Your task to perform on an android device: Open Amazon Image 0: 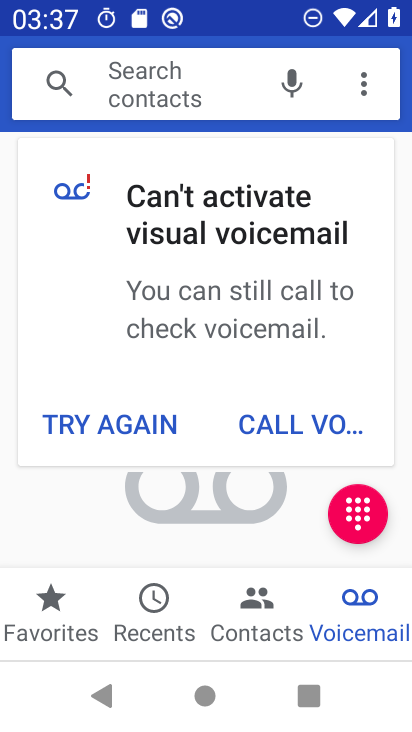
Step 0: press home button
Your task to perform on an android device: Open Amazon Image 1: 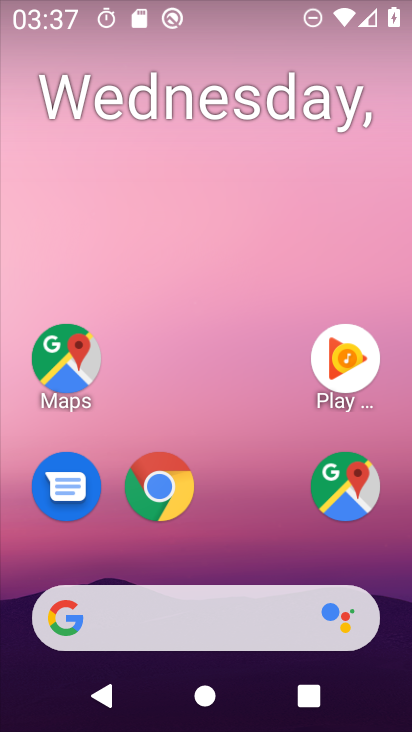
Step 1: drag from (278, 546) to (283, 173)
Your task to perform on an android device: Open Amazon Image 2: 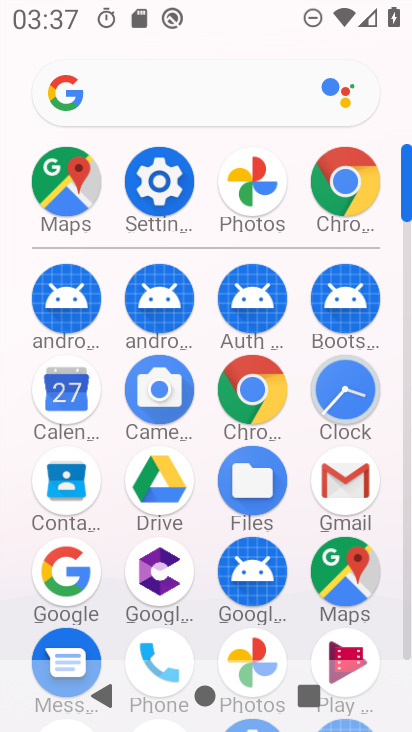
Step 2: click (263, 395)
Your task to perform on an android device: Open Amazon Image 3: 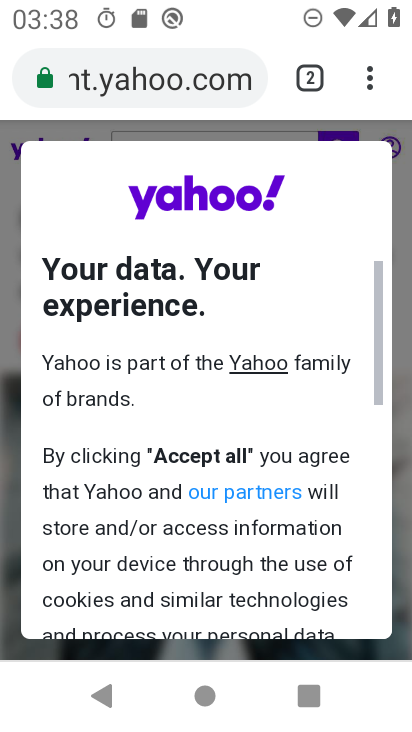
Step 3: click (215, 86)
Your task to perform on an android device: Open Amazon Image 4: 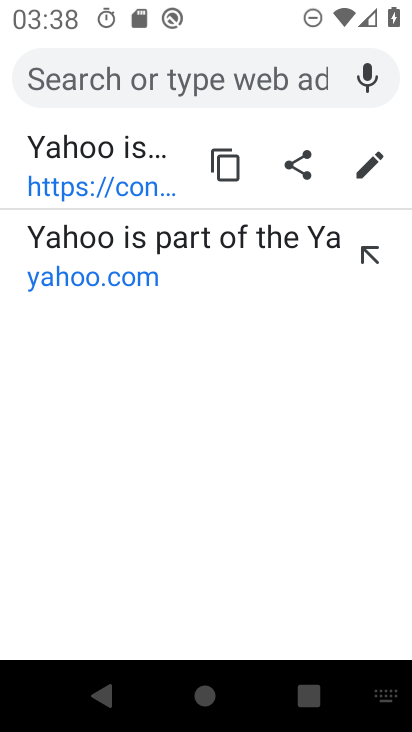
Step 4: type "amazon"
Your task to perform on an android device: Open Amazon Image 5: 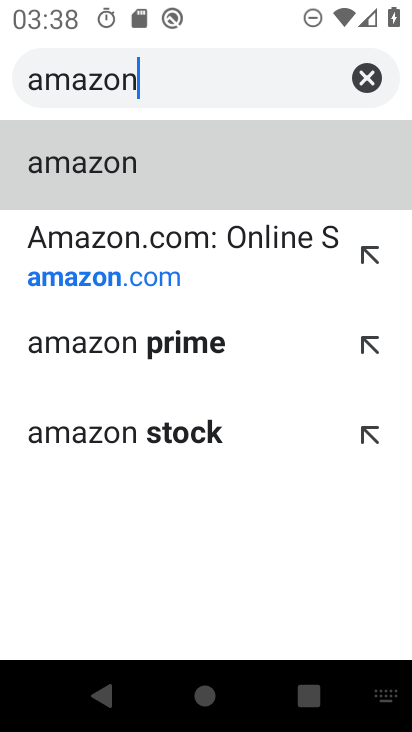
Step 5: click (262, 182)
Your task to perform on an android device: Open Amazon Image 6: 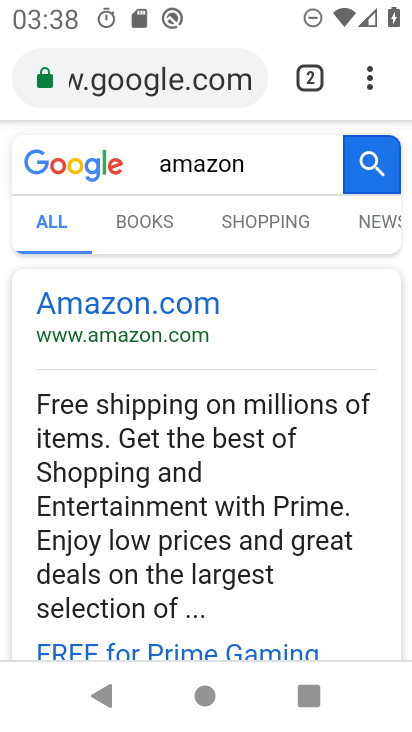
Step 6: task complete